Your task to perform on an android device: open a bookmark in the chrome app Image 0: 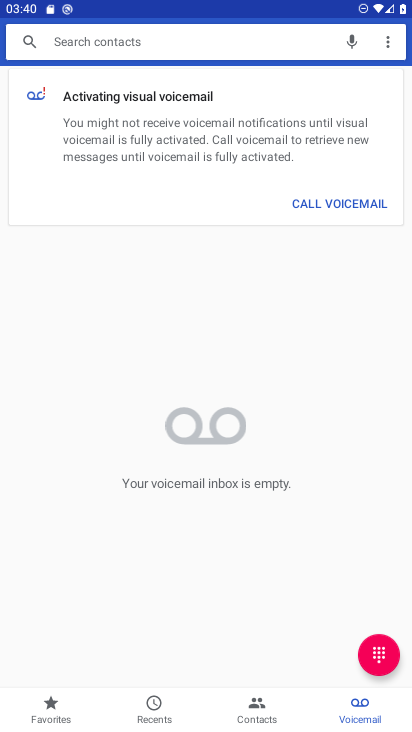
Step 0: press home button
Your task to perform on an android device: open a bookmark in the chrome app Image 1: 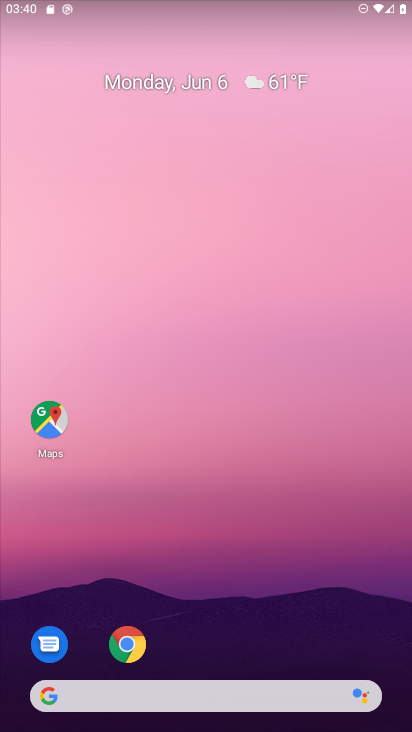
Step 1: click (121, 638)
Your task to perform on an android device: open a bookmark in the chrome app Image 2: 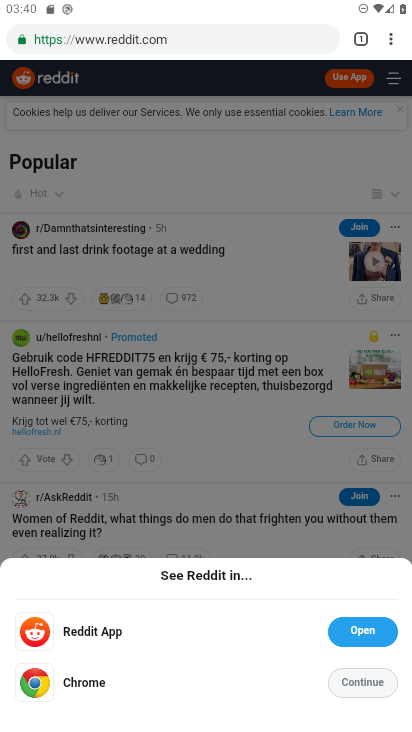
Step 2: click (390, 40)
Your task to perform on an android device: open a bookmark in the chrome app Image 3: 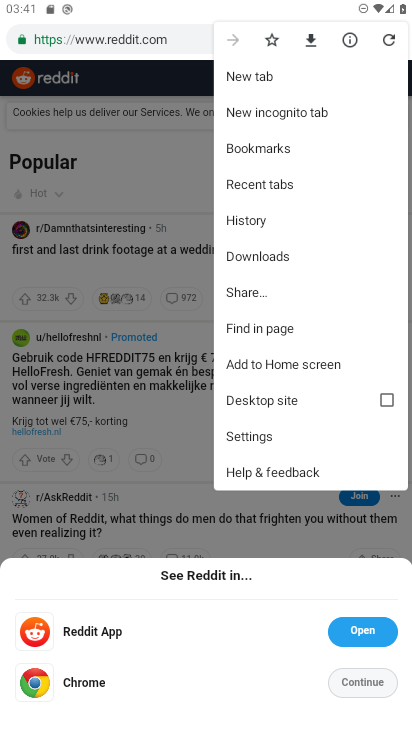
Step 3: click (266, 149)
Your task to perform on an android device: open a bookmark in the chrome app Image 4: 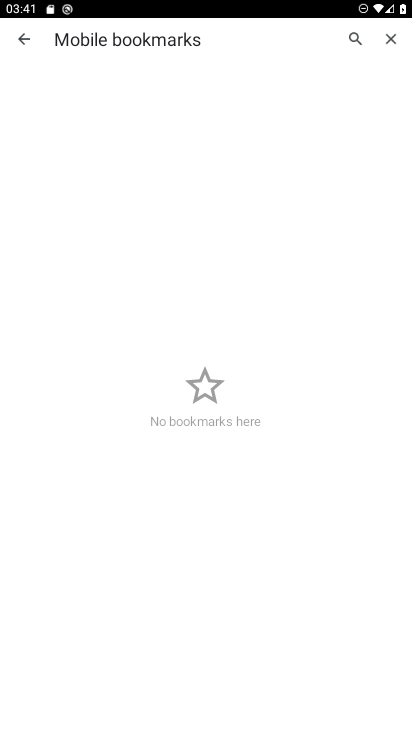
Step 4: task complete